Your task to perform on an android device: Show me productivity apps on the Play Store Image 0: 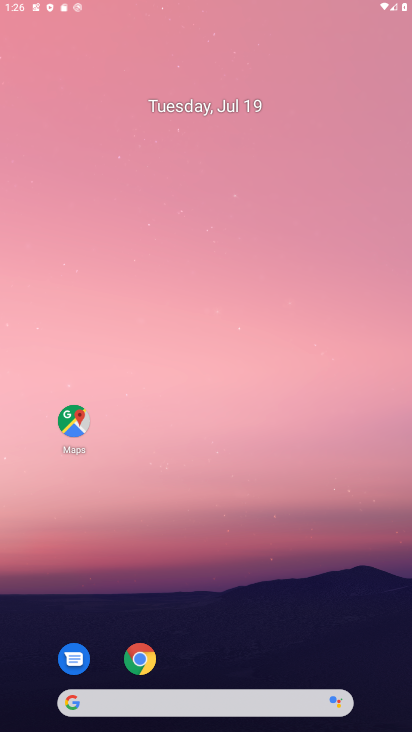
Step 0: press home button
Your task to perform on an android device: Show me productivity apps on the Play Store Image 1: 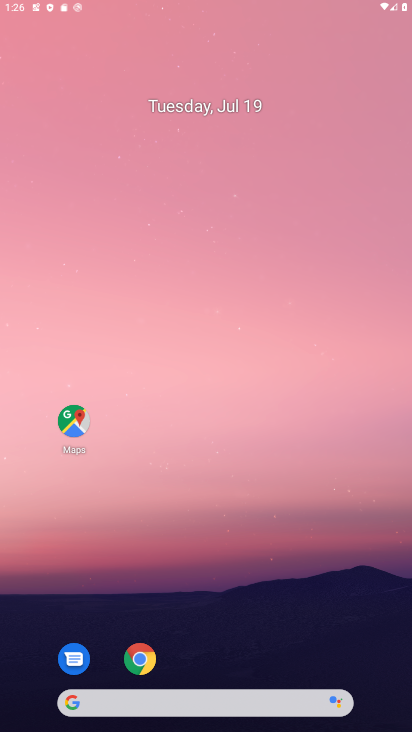
Step 1: click (272, 106)
Your task to perform on an android device: Show me productivity apps on the Play Store Image 2: 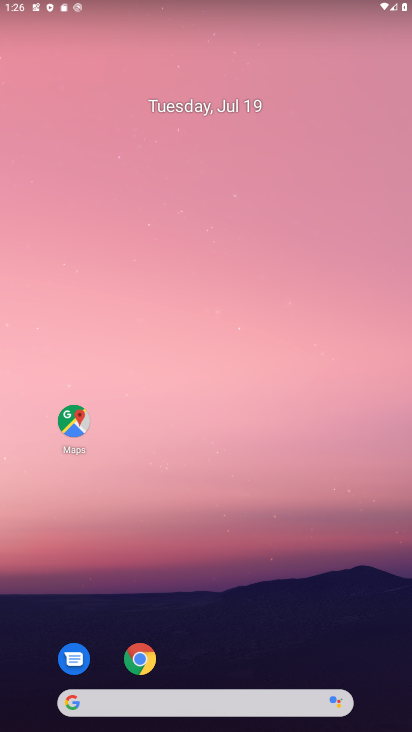
Step 2: drag from (256, 681) to (193, 88)
Your task to perform on an android device: Show me productivity apps on the Play Store Image 3: 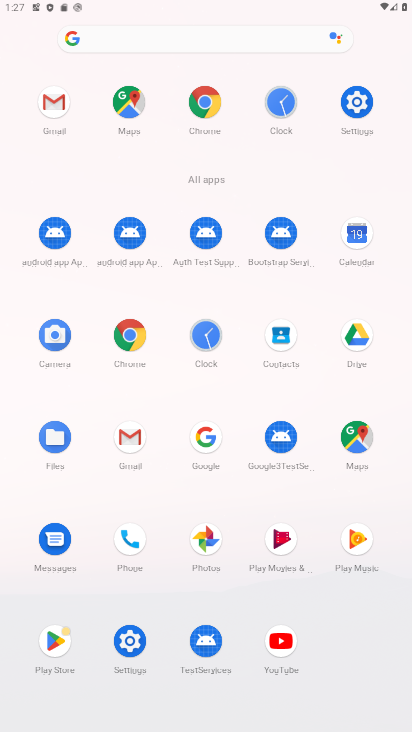
Step 3: click (72, 643)
Your task to perform on an android device: Show me productivity apps on the Play Store Image 4: 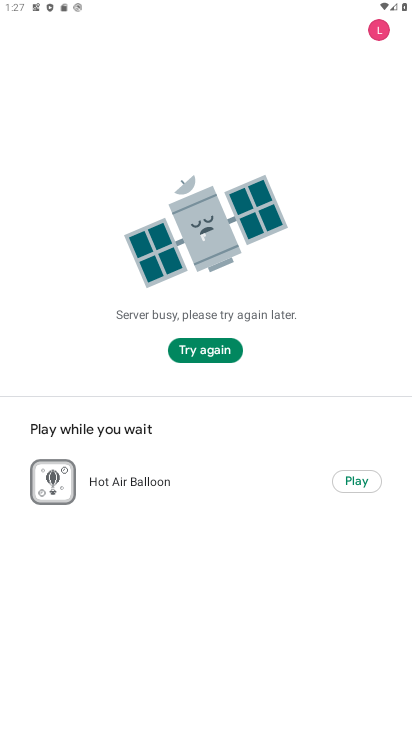
Step 4: click (210, 362)
Your task to perform on an android device: Show me productivity apps on the Play Store Image 5: 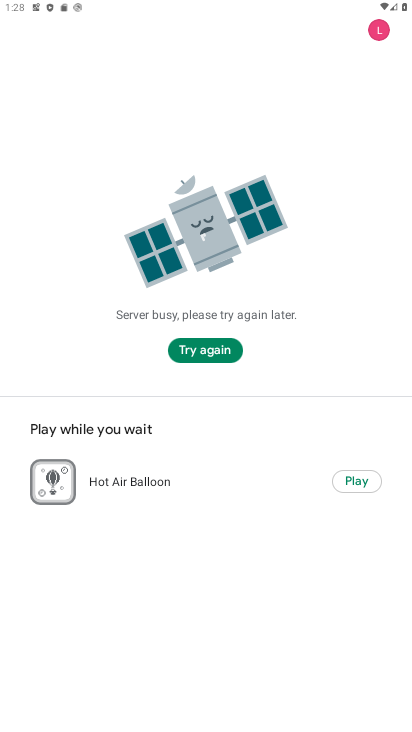
Step 5: task complete